Your task to perform on an android device: turn off location history Image 0: 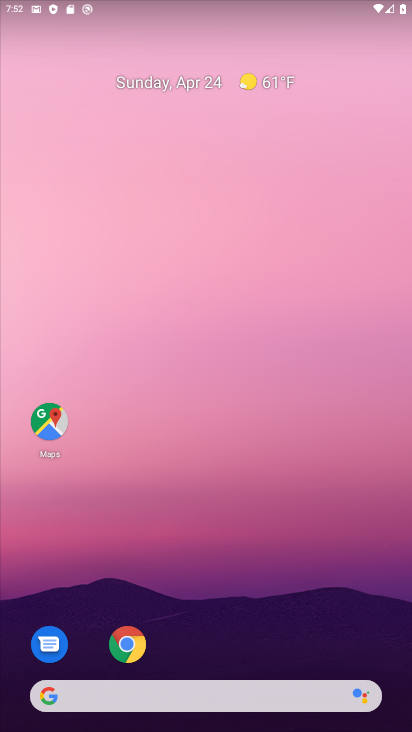
Step 0: drag from (211, 690) to (216, 148)
Your task to perform on an android device: turn off location history Image 1: 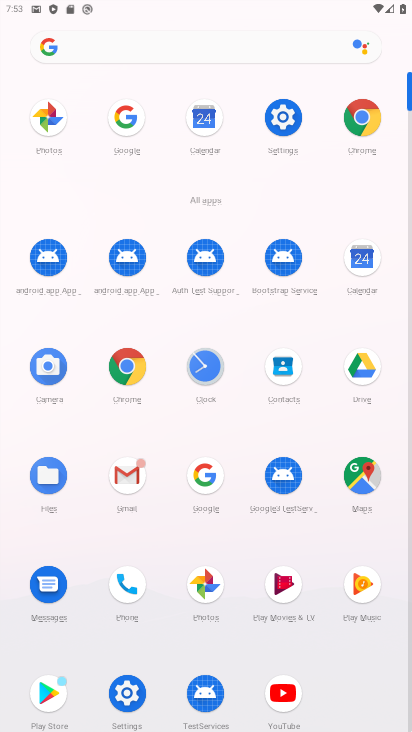
Step 1: click (284, 132)
Your task to perform on an android device: turn off location history Image 2: 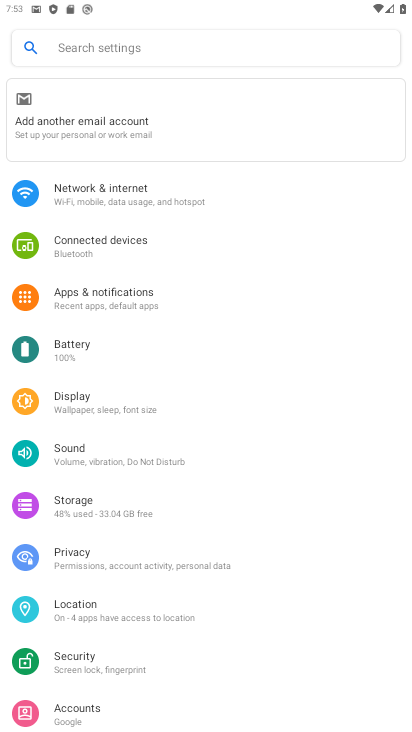
Step 2: click (91, 608)
Your task to perform on an android device: turn off location history Image 3: 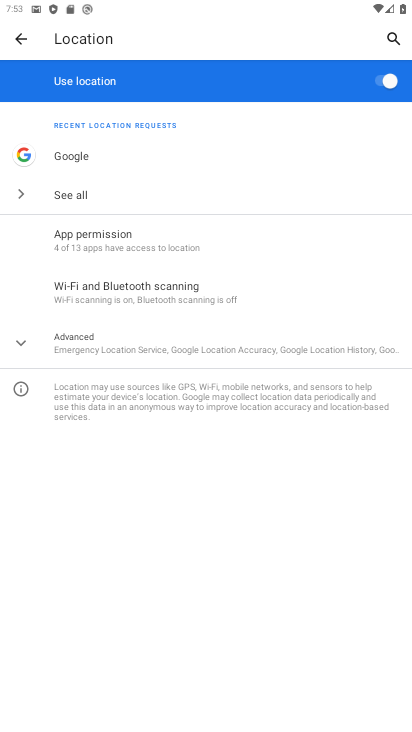
Step 3: click (145, 355)
Your task to perform on an android device: turn off location history Image 4: 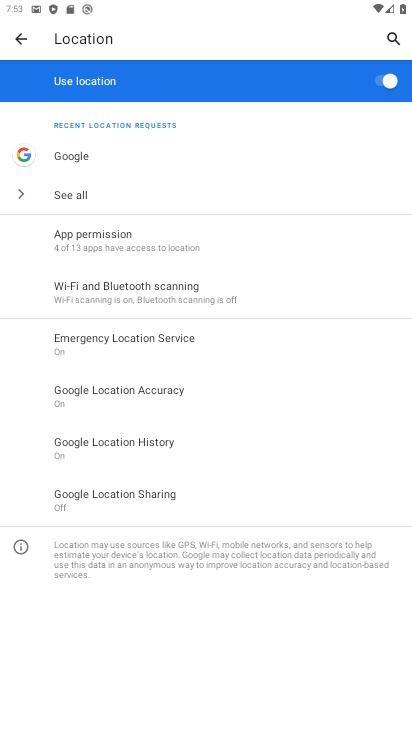
Step 4: click (146, 441)
Your task to perform on an android device: turn off location history Image 5: 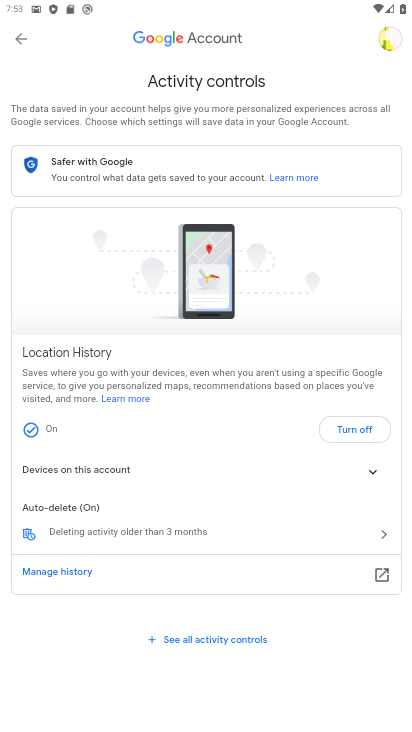
Step 5: click (361, 424)
Your task to perform on an android device: turn off location history Image 6: 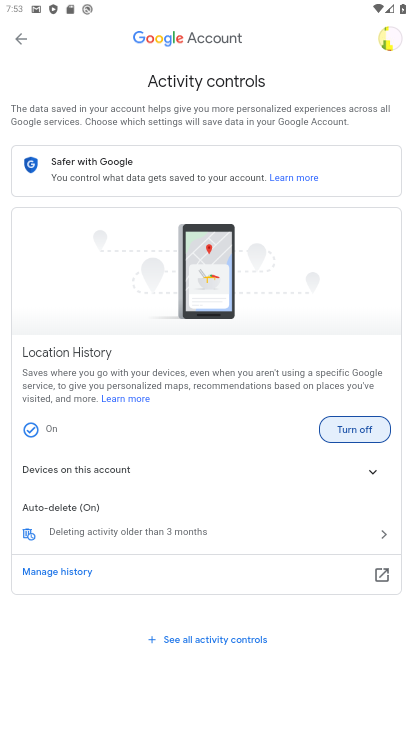
Step 6: click (335, 424)
Your task to perform on an android device: turn off location history Image 7: 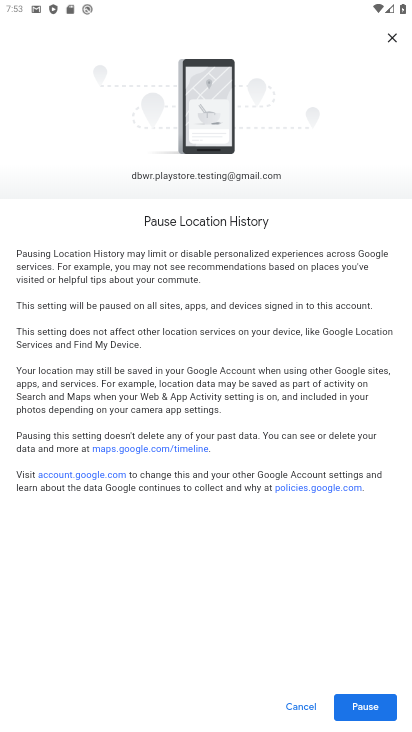
Step 7: click (361, 703)
Your task to perform on an android device: turn off location history Image 8: 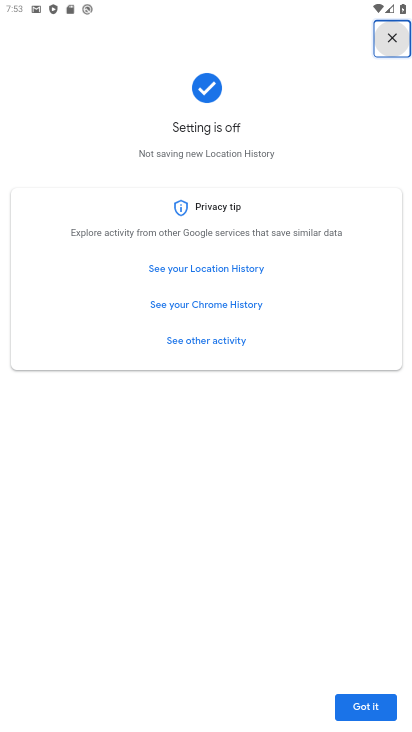
Step 8: click (363, 705)
Your task to perform on an android device: turn off location history Image 9: 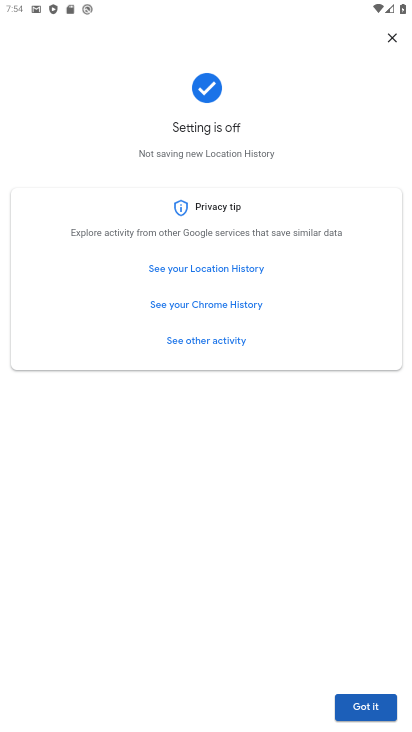
Step 9: task complete